Your task to perform on an android device: open app "Facebook" (install if not already installed) and go to login screen Image 0: 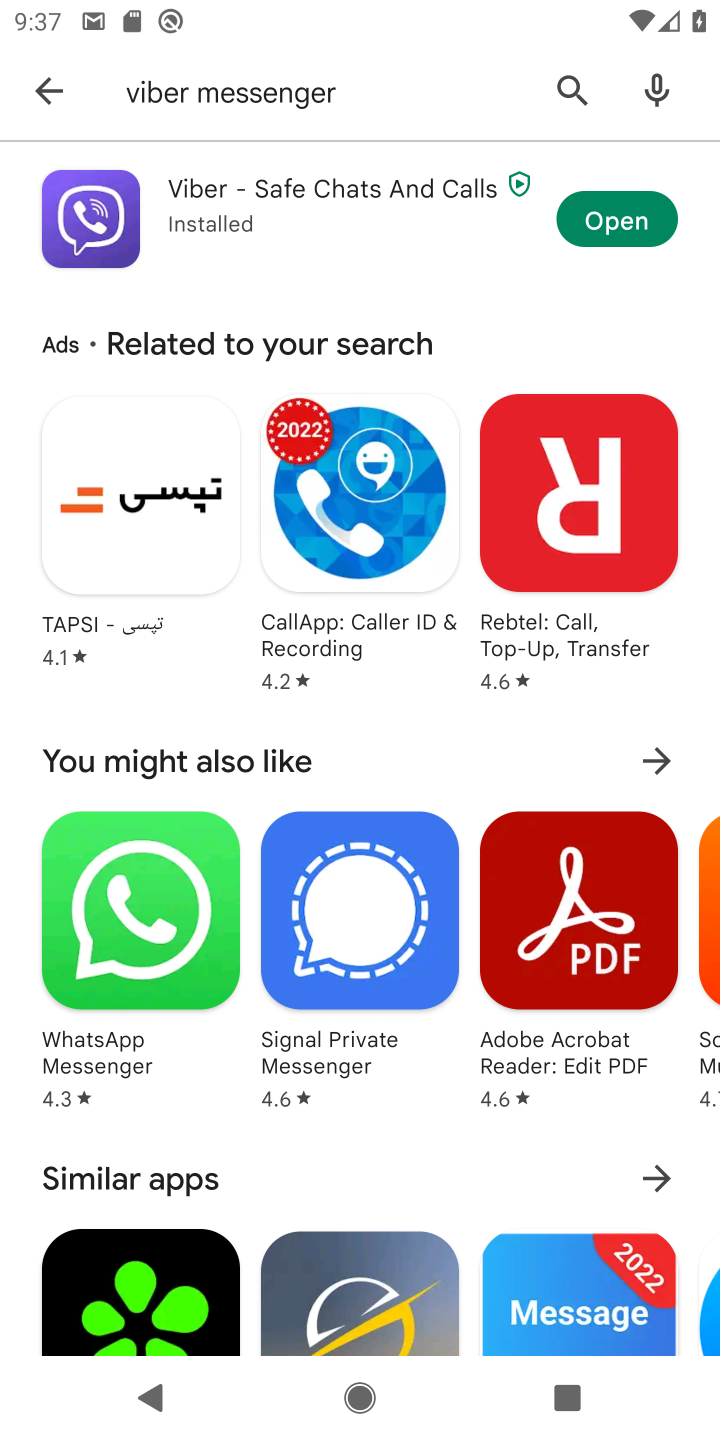
Step 0: click (570, 83)
Your task to perform on an android device: open app "Facebook" (install if not already installed) and go to login screen Image 1: 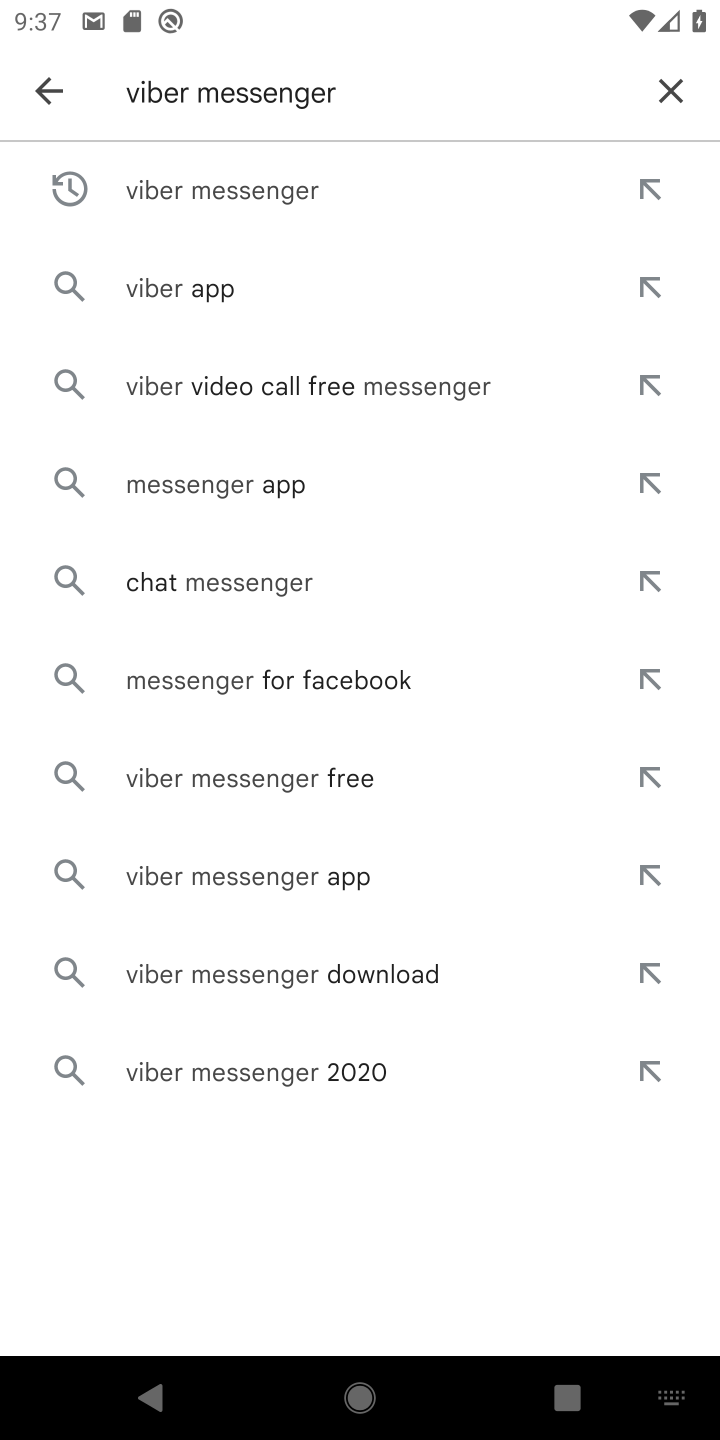
Step 1: click (675, 92)
Your task to perform on an android device: open app "Facebook" (install if not already installed) and go to login screen Image 2: 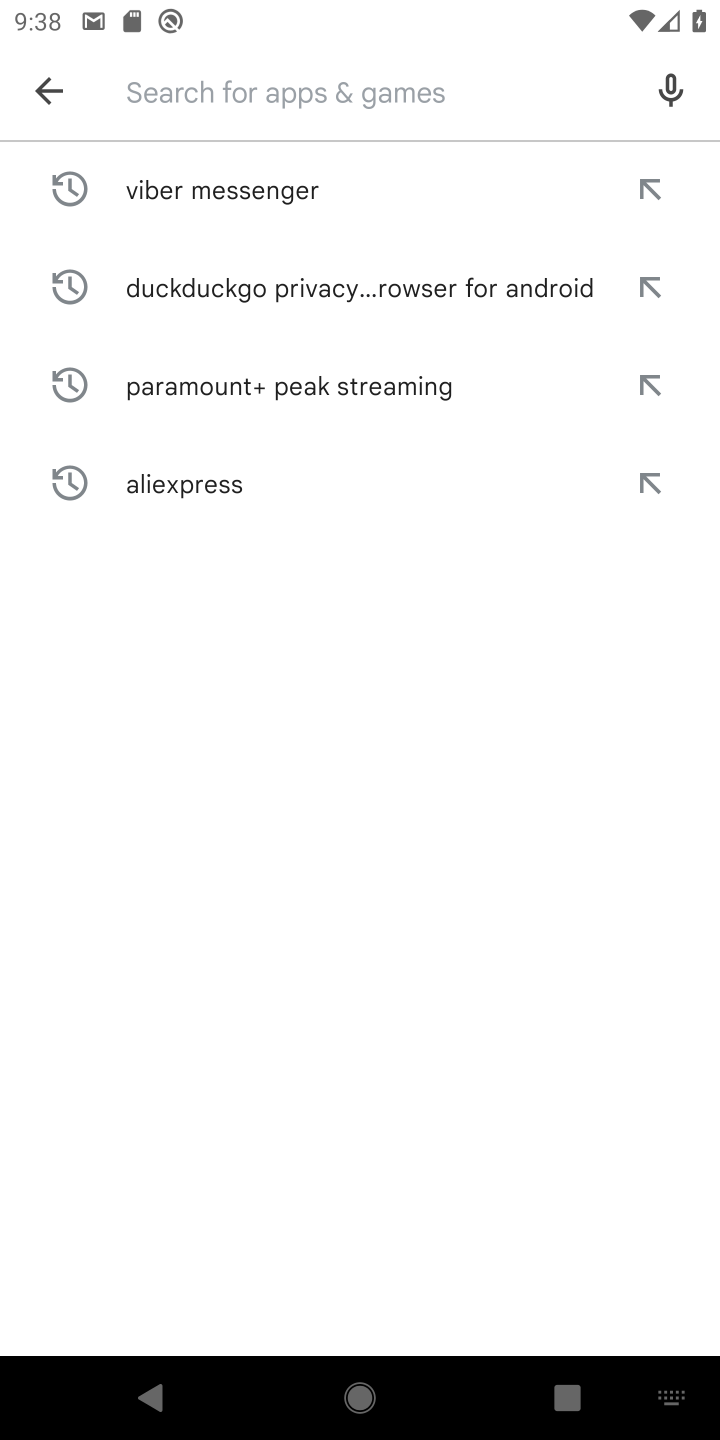
Step 2: type "Facebook"
Your task to perform on an android device: open app "Facebook" (install if not already installed) and go to login screen Image 3: 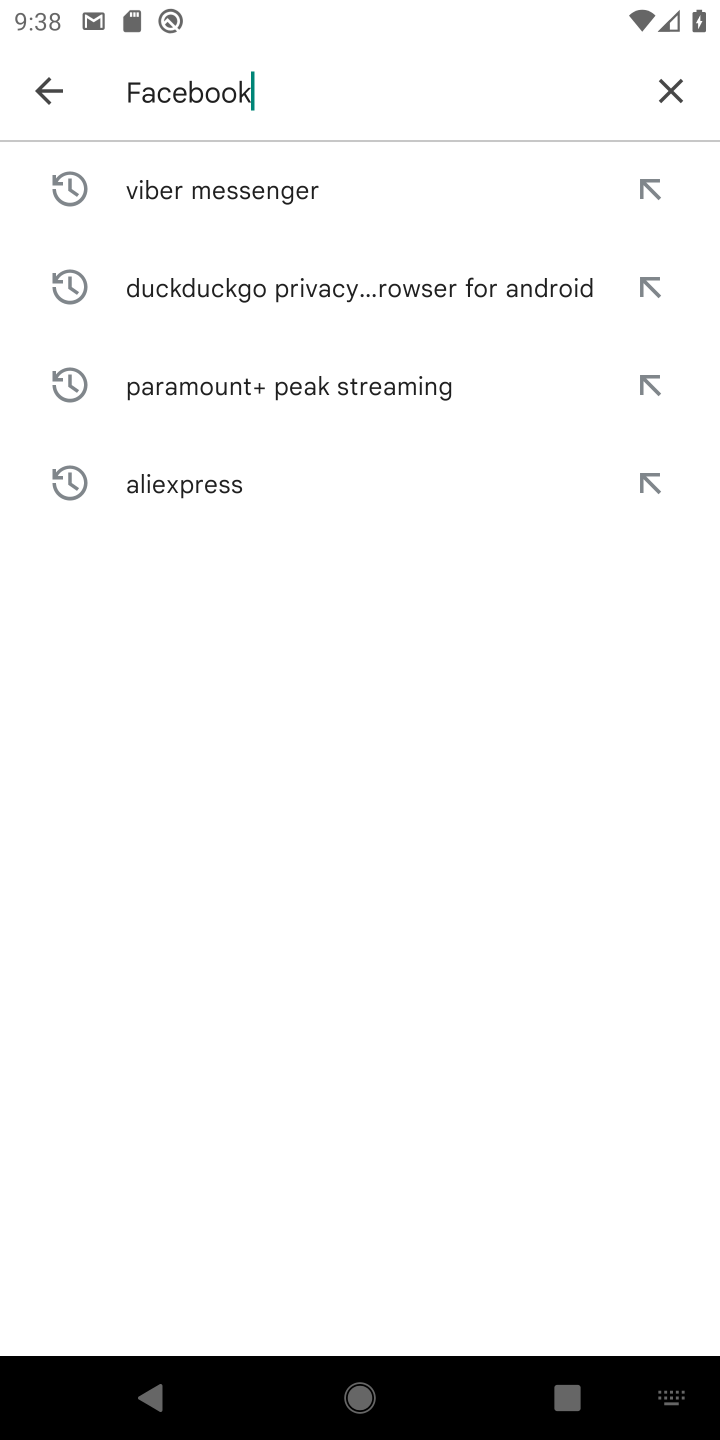
Step 3: type ""
Your task to perform on an android device: open app "Facebook" (install if not already installed) and go to login screen Image 4: 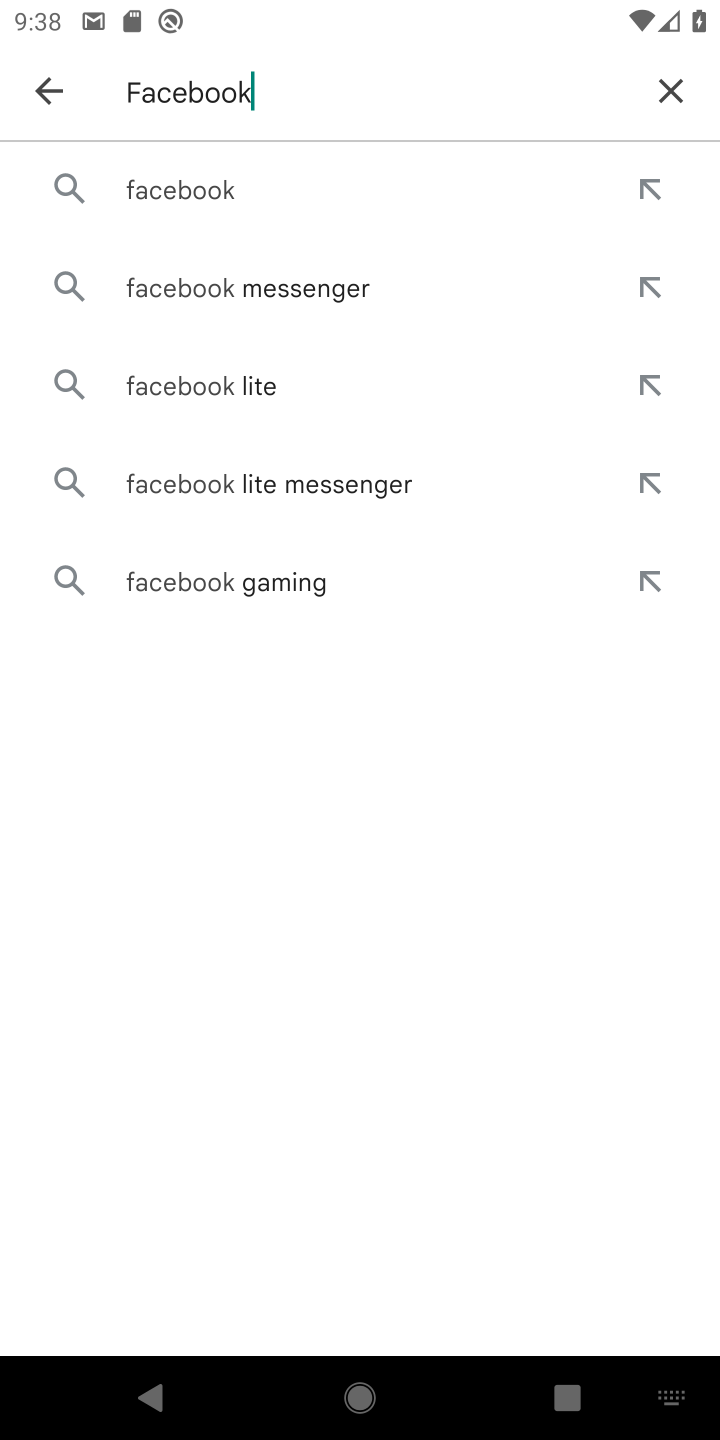
Step 4: click (255, 179)
Your task to perform on an android device: open app "Facebook" (install if not already installed) and go to login screen Image 5: 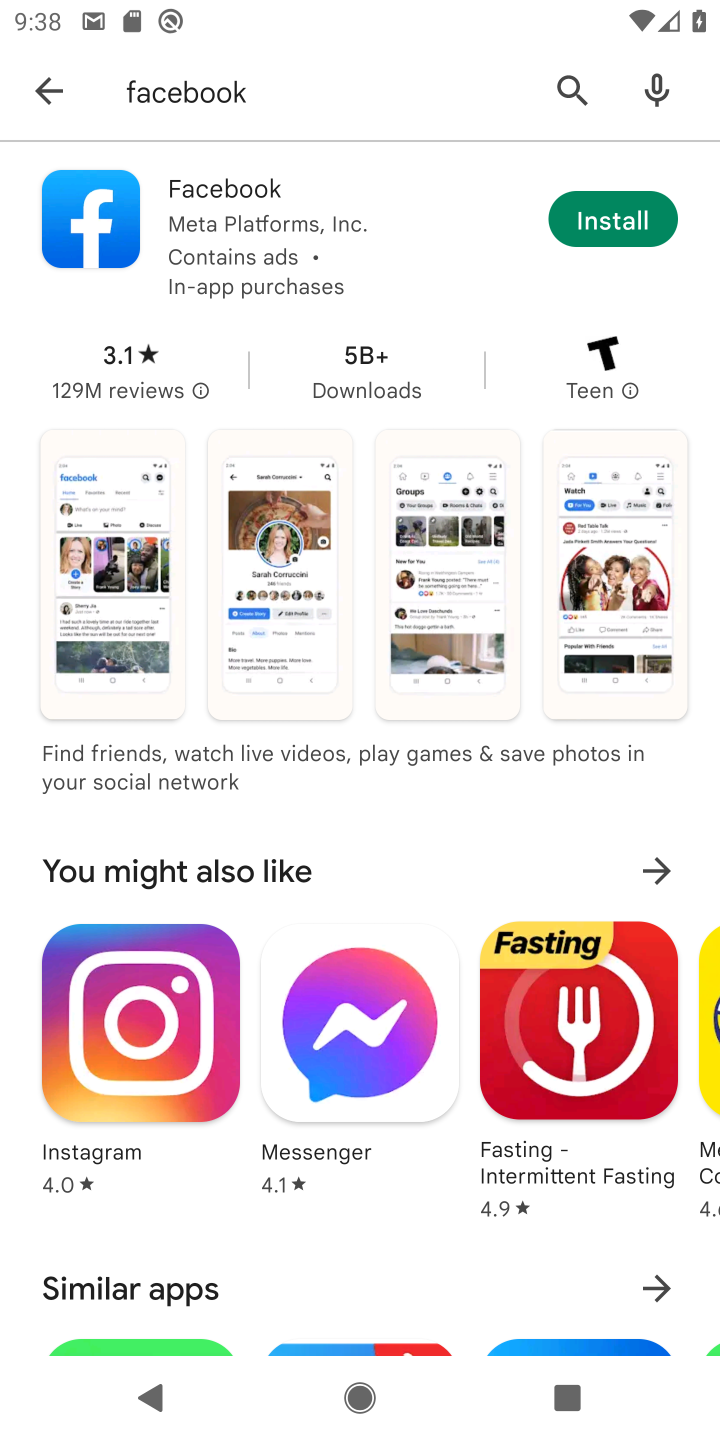
Step 5: click (577, 234)
Your task to perform on an android device: open app "Facebook" (install if not already installed) and go to login screen Image 6: 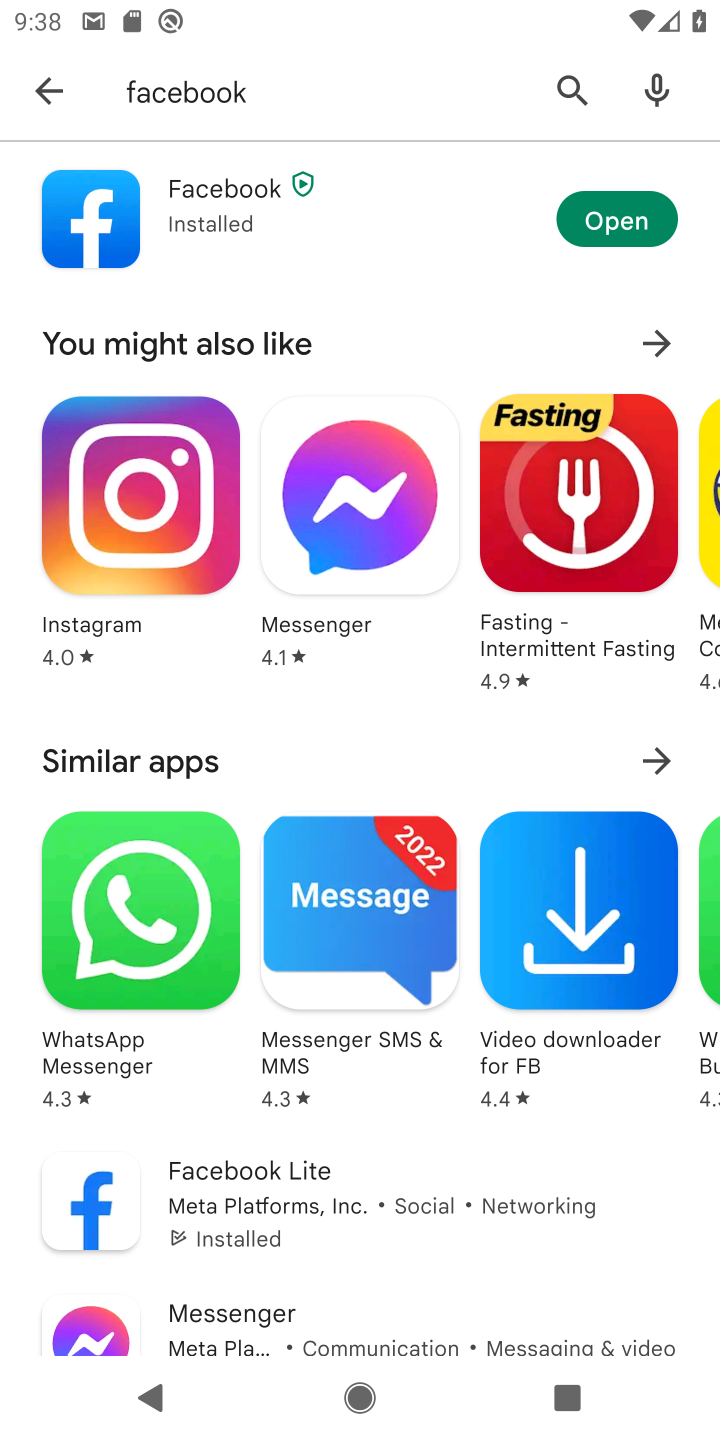
Step 6: click (632, 217)
Your task to perform on an android device: open app "Facebook" (install if not already installed) and go to login screen Image 7: 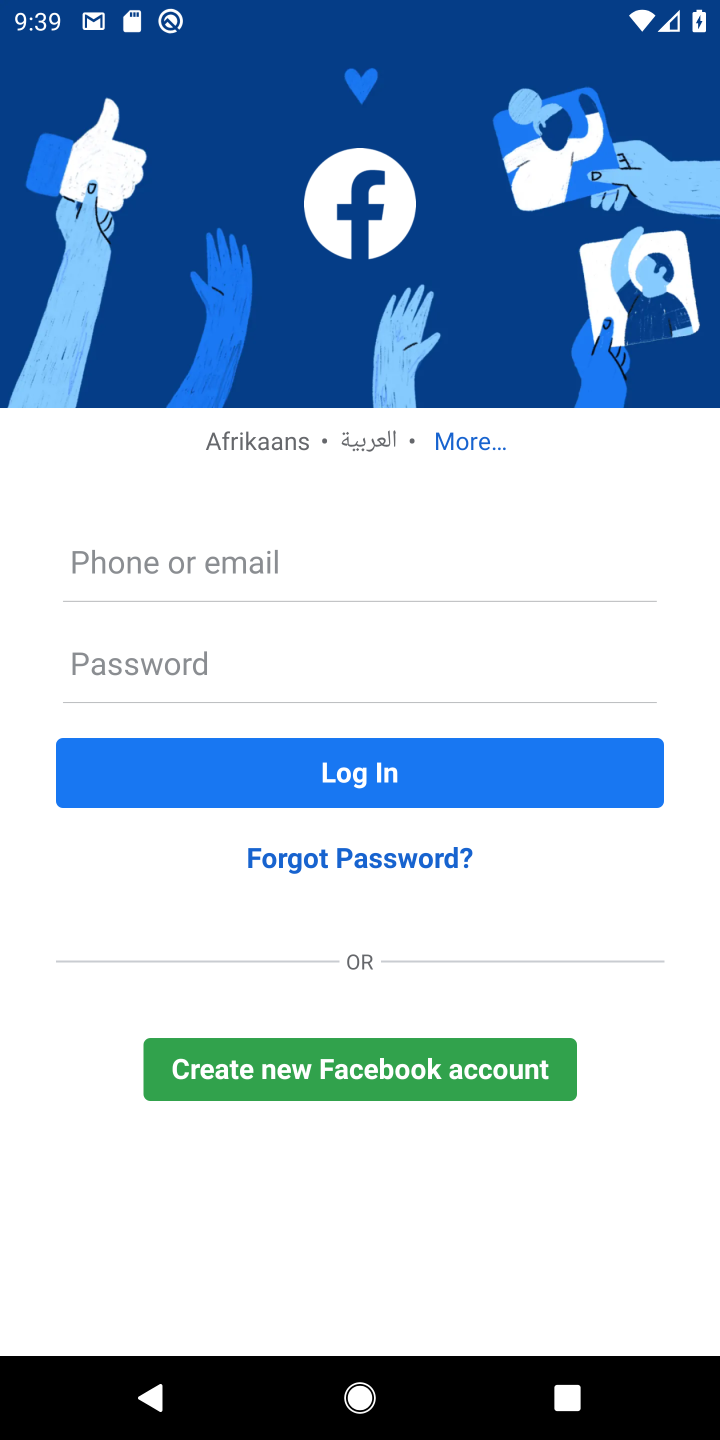
Step 7: task complete